Your task to perform on an android device: turn off airplane mode Image 0: 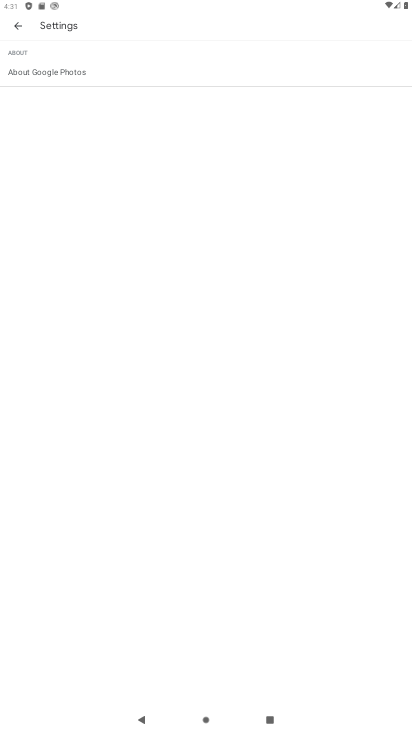
Step 0: press home button
Your task to perform on an android device: turn off airplane mode Image 1: 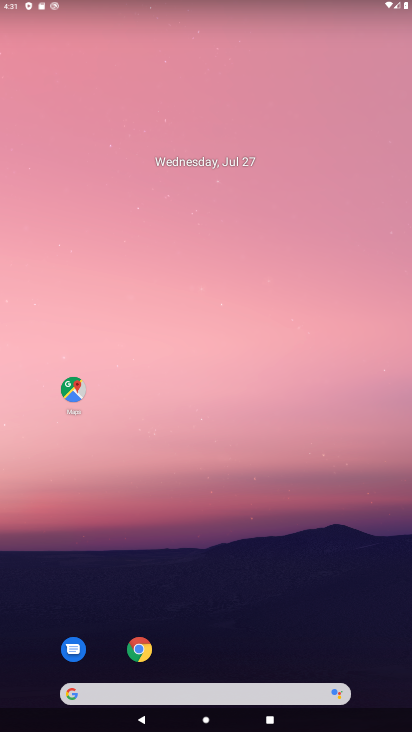
Step 1: drag from (192, 688) to (225, 151)
Your task to perform on an android device: turn off airplane mode Image 2: 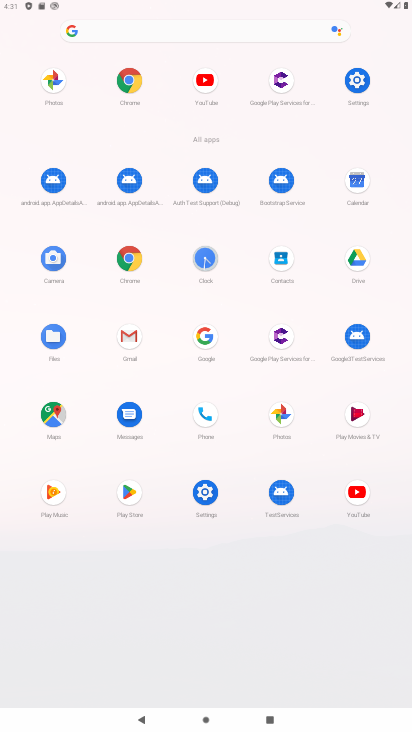
Step 2: click (206, 493)
Your task to perform on an android device: turn off airplane mode Image 3: 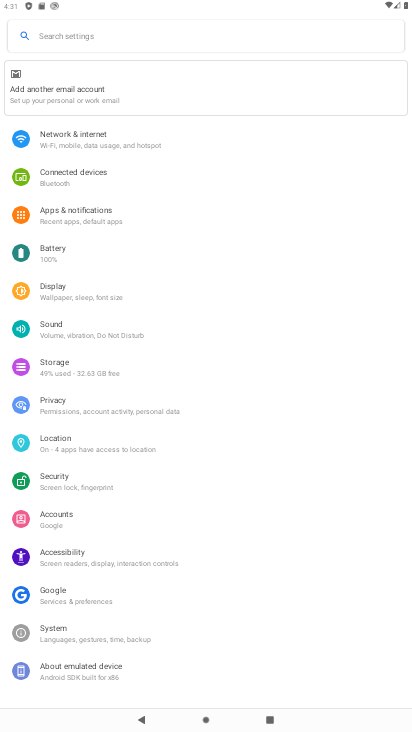
Step 3: click (80, 139)
Your task to perform on an android device: turn off airplane mode Image 4: 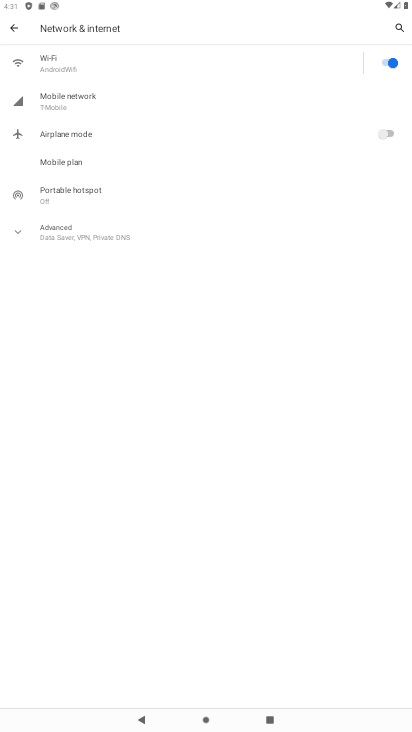
Step 4: task complete